Your task to perform on an android device: turn off priority inbox in the gmail app Image 0: 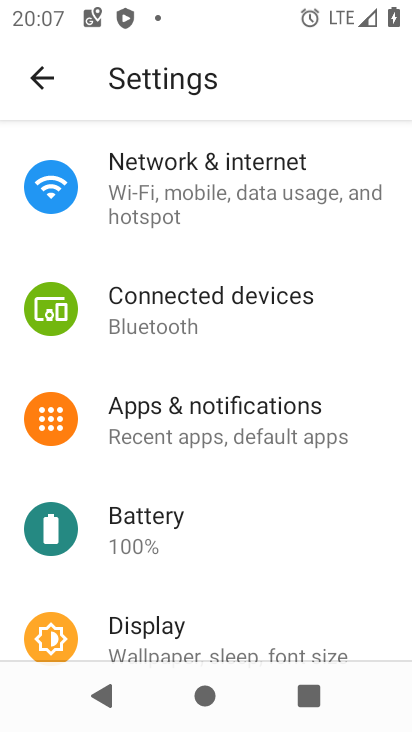
Step 0: press home button
Your task to perform on an android device: turn off priority inbox in the gmail app Image 1: 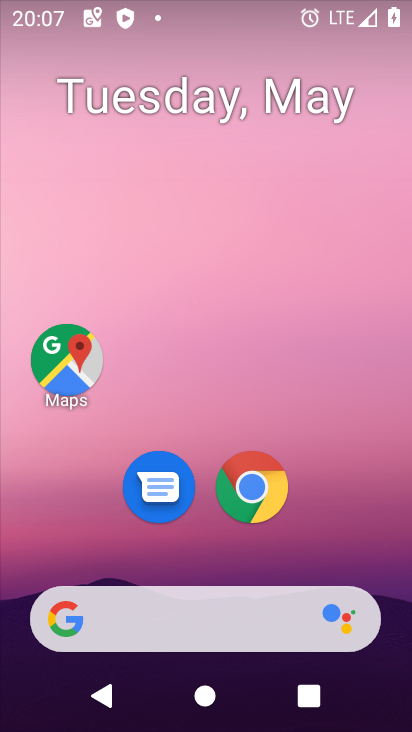
Step 1: drag from (321, 491) to (202, 63)
Your task to perform on an android device: turn off priority inbox in the gmail app Image 2: 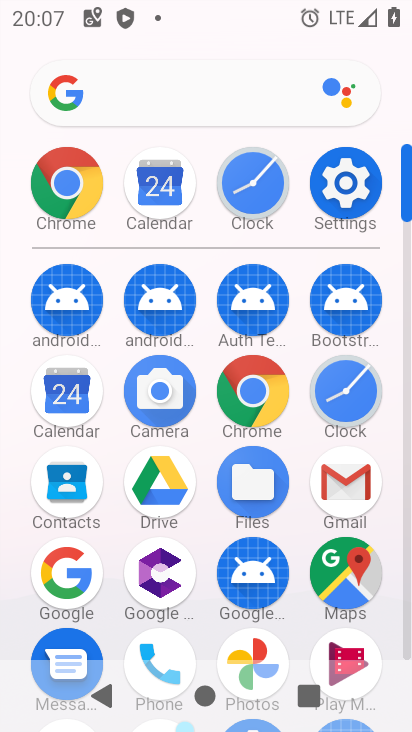
Step 2: click (343, 486)
Your task to perform on an android device: turn off priority inbox in the gmail app Image 3: 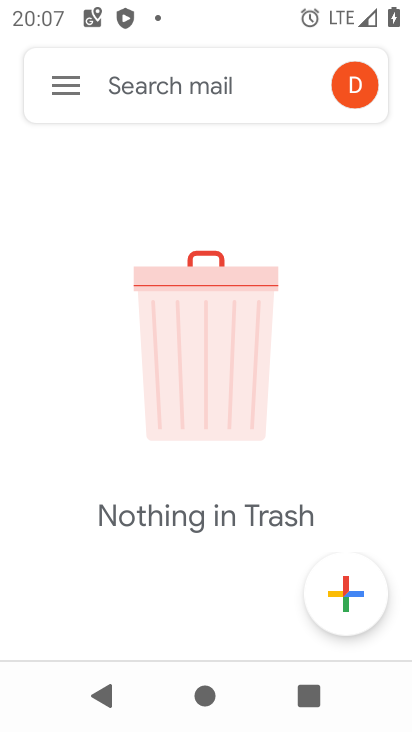
Step 3: click (60, 78)
Your task to perform on an android device: turn off priority inbox in the gmail app Image 4: 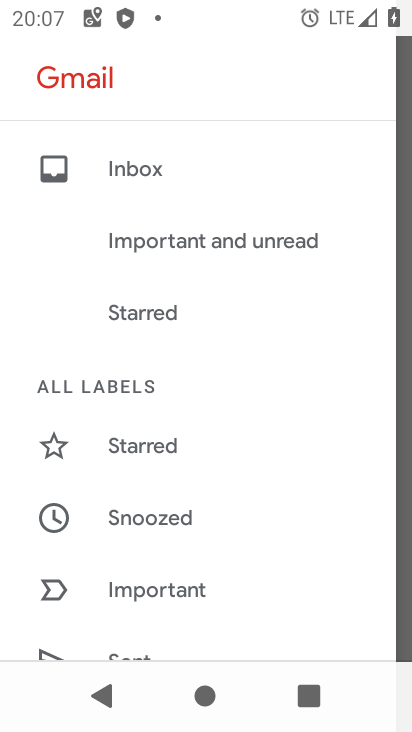
Step 4: drag from (268, 599) to (208, 220)
Your task to perform on an android device: turn off priority inbox in the gmail app Image 5: 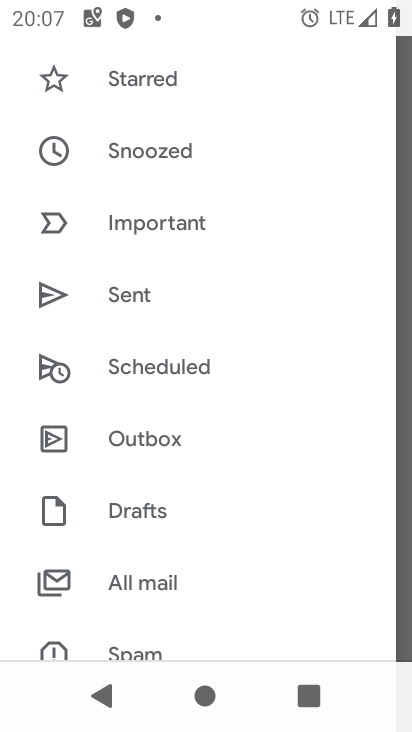
Step 5: drag from (257, 567) to (262, 194)
Your task to perform on an android device: turn off priority inbox in the gmail app Image 6: 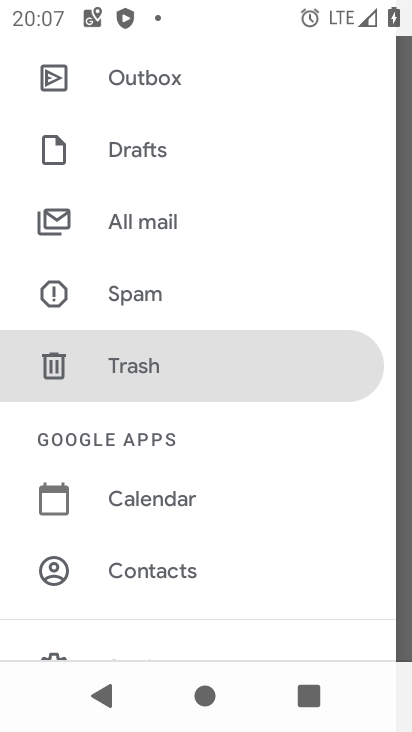
Step 6: drag from (223, 511) to (224, 167)
Your task to perform on an android device: turn off priority inbox in the gmail app Image 7: 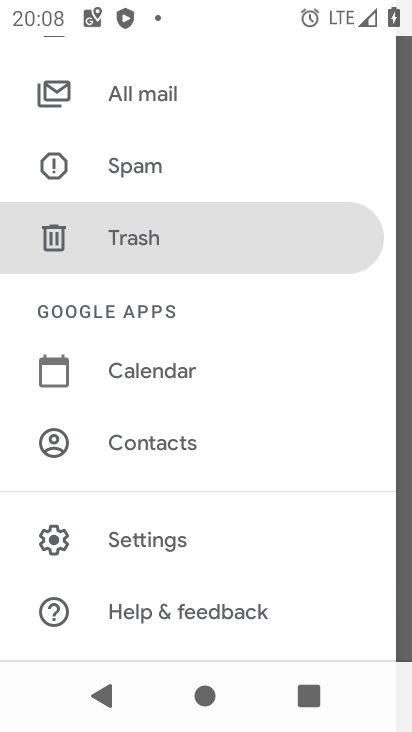
Step 7: click (160, 537)
Your task to perform on an android device: turn off priority inbox in the gmail app Image 8: 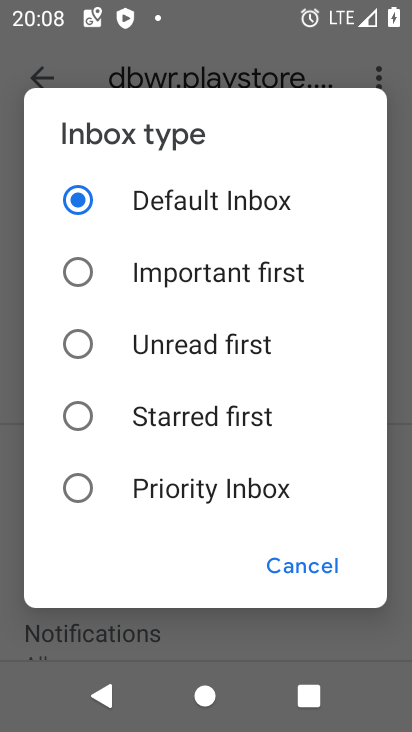
Step 8: task complete